Your task to perform on an android device: turn vacation reply on in the gmail app Image 0: 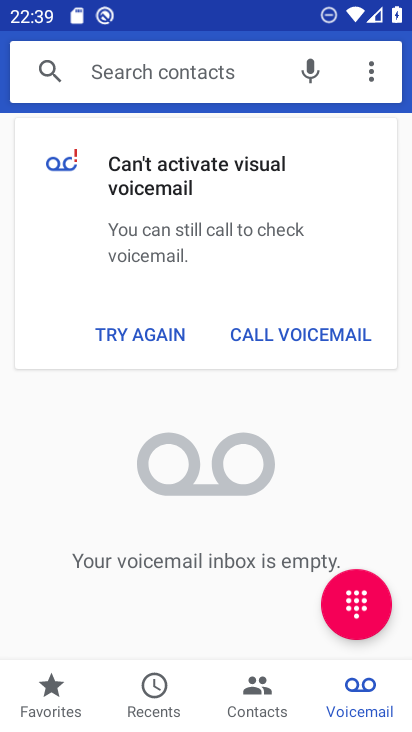
Step 0: press home button
Your task to perform on an android device: turn vacation reply on in the gmail app Image 1: 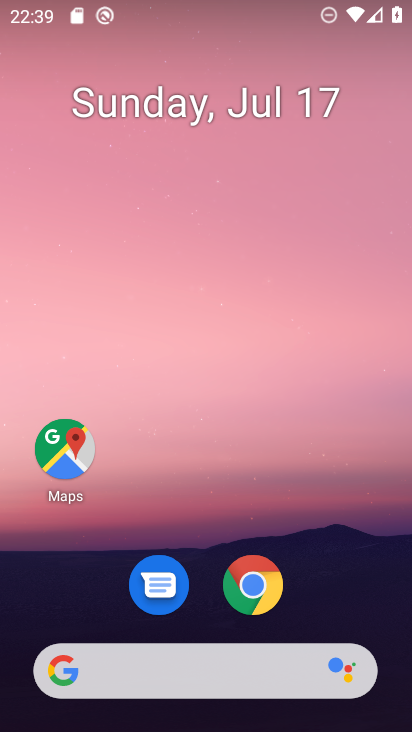
Step 1: drag from (177, 670) to (288, 82)
Your task to perform on an android device: turn vacation reply on in the gmail app Image 2: 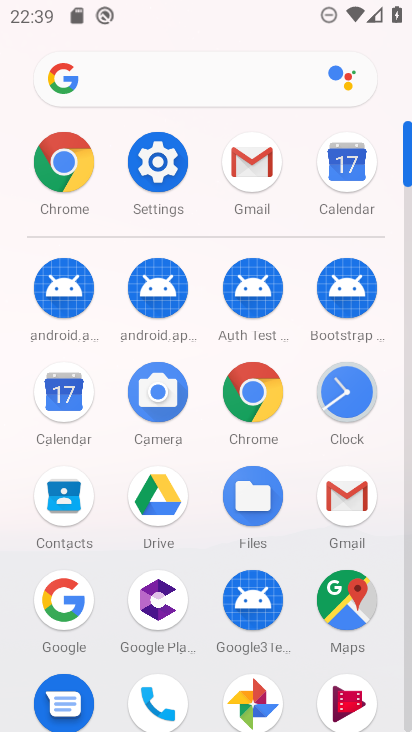
Step 2: click (255, 167)
Your task to perform on an android device: turn vacation reply on in the gmail app Image 3: 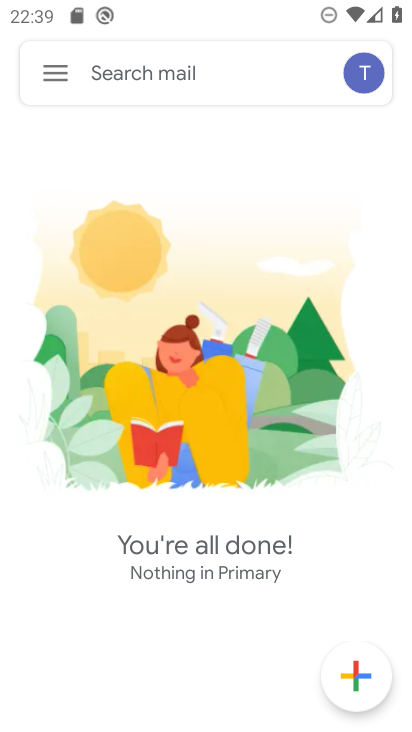
Step 3: click (57, 70)
Your task to perform on an android device: turn vacation reply on in the gmail app Image 4: 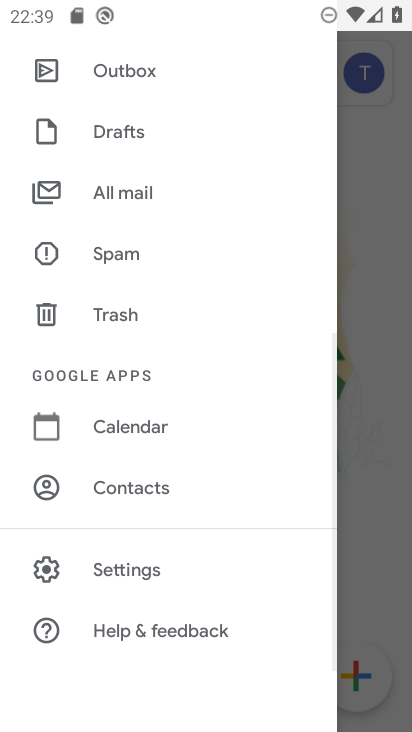
Step 4: click (140, 566)
Your task to perform on an android device: turn vacation reply on in the gmail app Image 5: 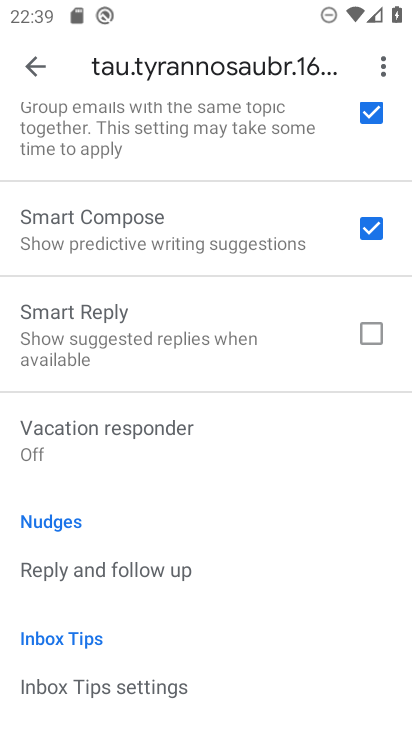
Step 5: click (149, 430)
Your task to perform on an android device: turn vacation reply on in the gmail app Image 6: 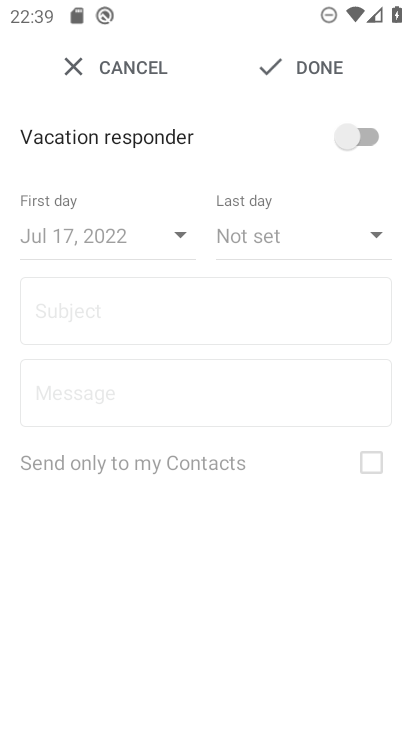
Step 6: click (361, 132)
Your task to perform on an android device: turn vacation reply on in the gmail app Image 7: 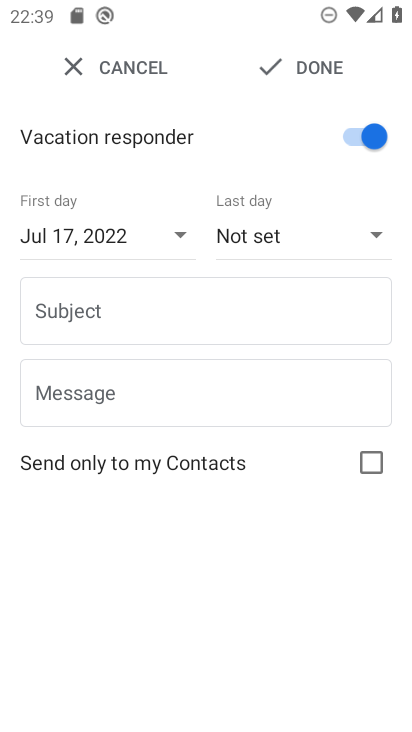
Step 7: click (54, 306)
Your task to perform on an android device: turn vacation reply on in the gmail app Image 8: 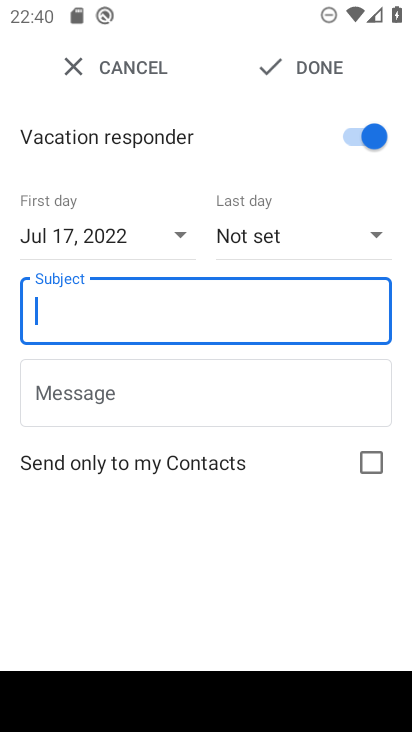
Step 8: type "nhuggg"
Your task to perform on an android device: turn vacation reply on in the gmail app Image 9: 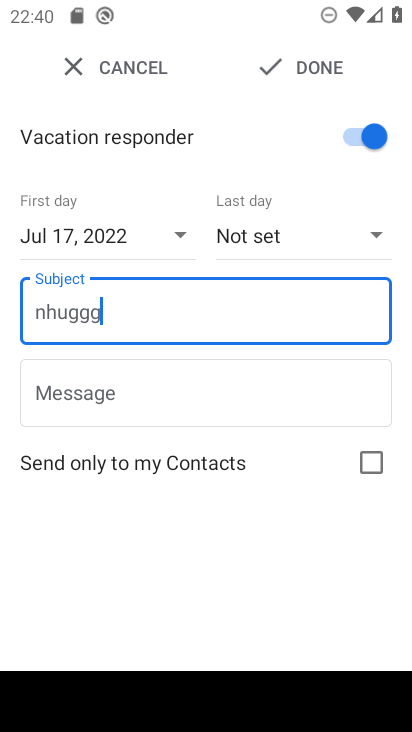
Step 9: click (192, 385)
Your task to perform on an android device: turn vacation reply on in the gmail app Image 10: 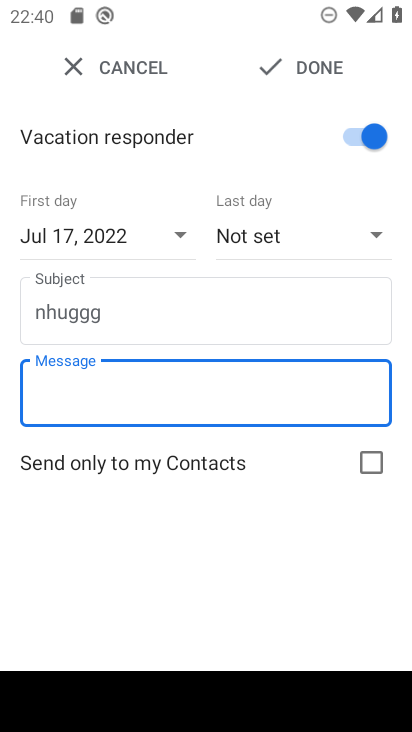
Step 10: type "mnjhuu"
Your task to perform on an android device: turn vacation reply on in the gmail app Image 11: 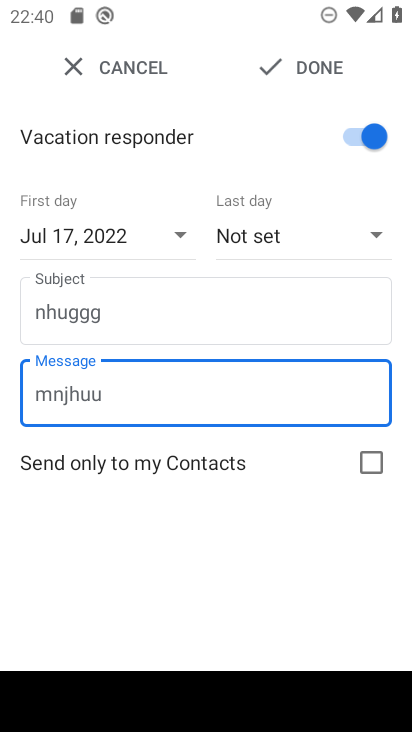
Step 11: click (325, 62)
Your task to perform on an android device: turn vacation reply on in the gmail app Image 12: 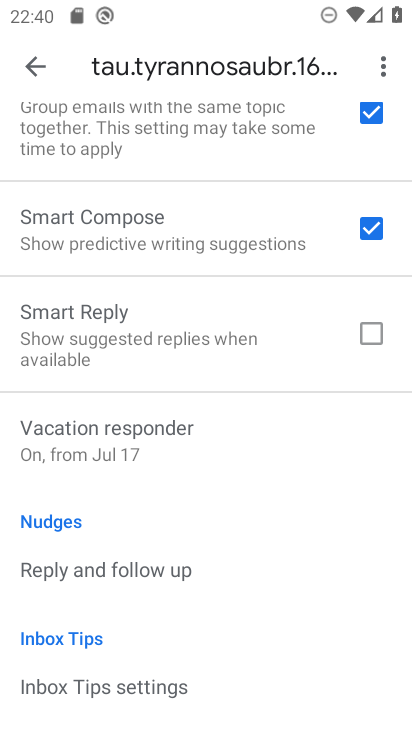
Step 12: task complete